Your task to perform on an android device: toggle improve location accuracy Image 0: 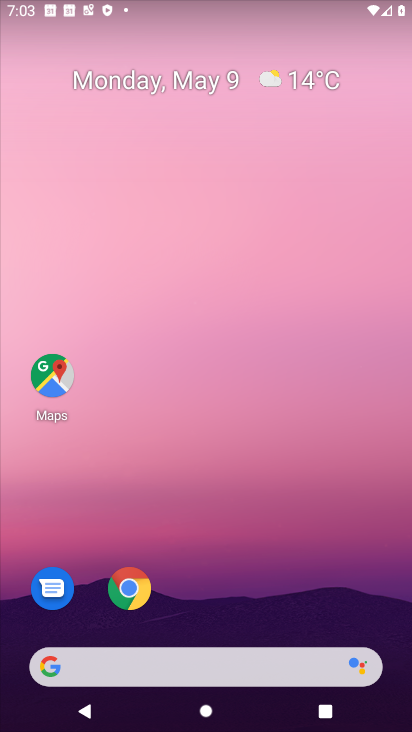
Step 0: drag from (329, 599) to (260, 58)
Your task to perform on an android device: toggle improve location accuracy Image 1: 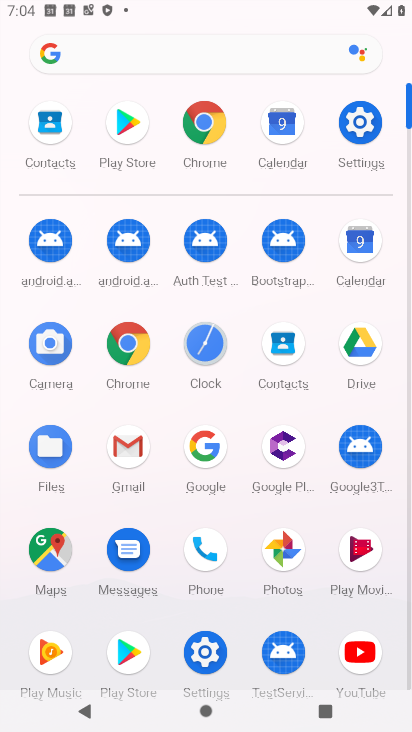
Step 1: click (216, 648)
Your task to perform on an android device: toggle improve location accuracy Image 2: 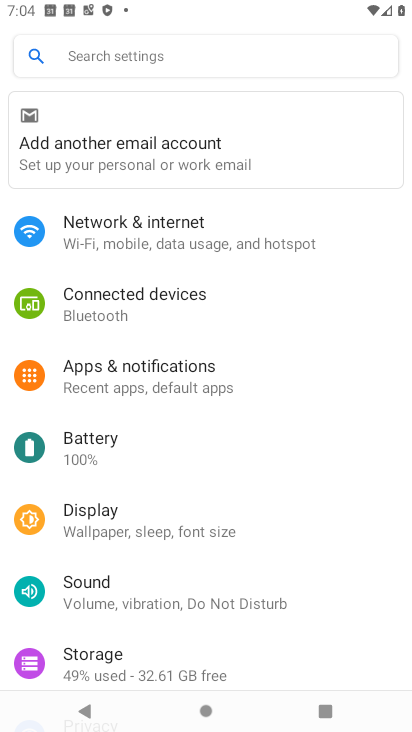
Step 2: drag from (150, 633) to (177, 187)
Your task to perform on an android device: toggle improve location accuracy Image 3: 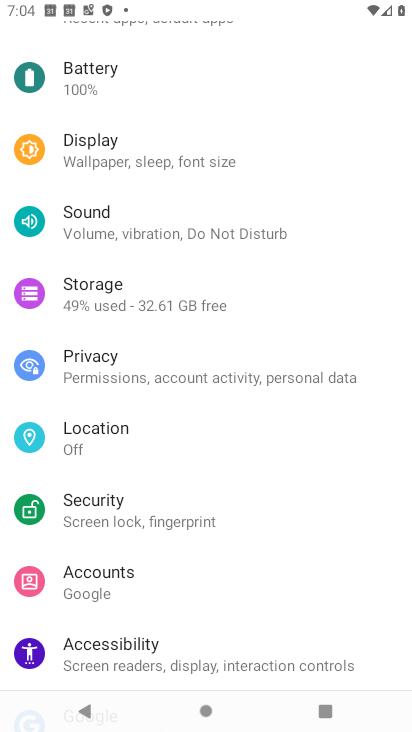
Step 3: click (128, 440)
Your task to perform on an android device: toggle improve location accuracy Image 4: 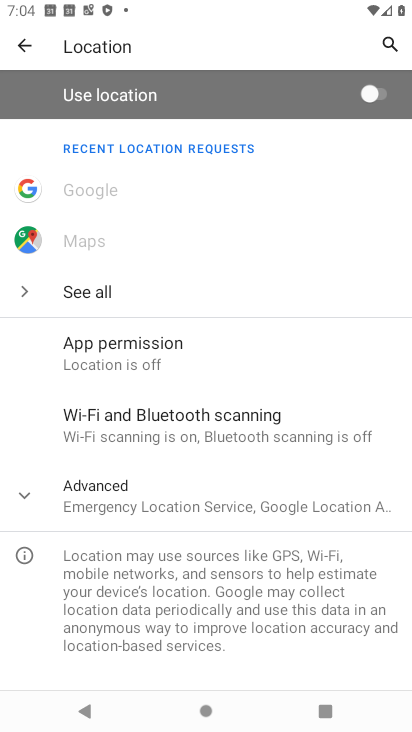
Step 4: click (108, 484)
Your task to perform on an android device: toggle improve location accuracy Image 5: 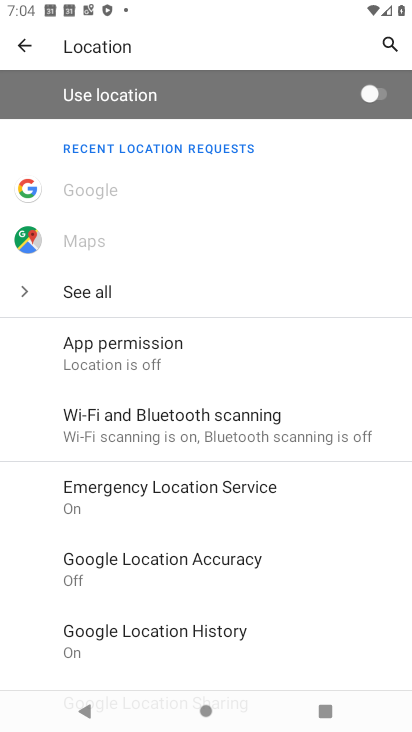
Step 5: click (163, 573)
Your task to perform on an android device: toggle improve location accuracy Image 6: 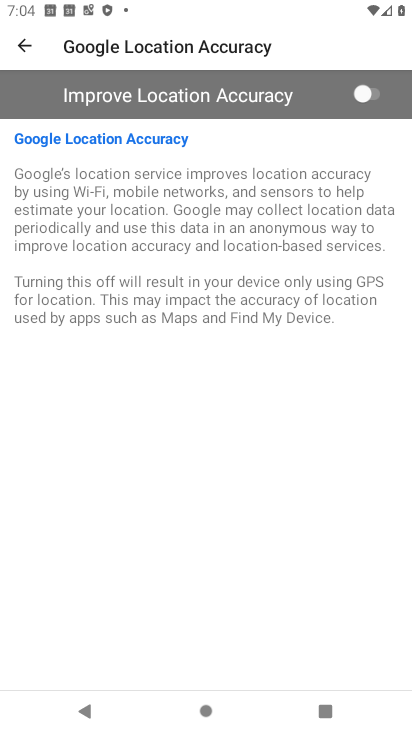
Step 6: click (352, 83)
Your task to perform on an android device: toggle improve location accuracy Image 7: 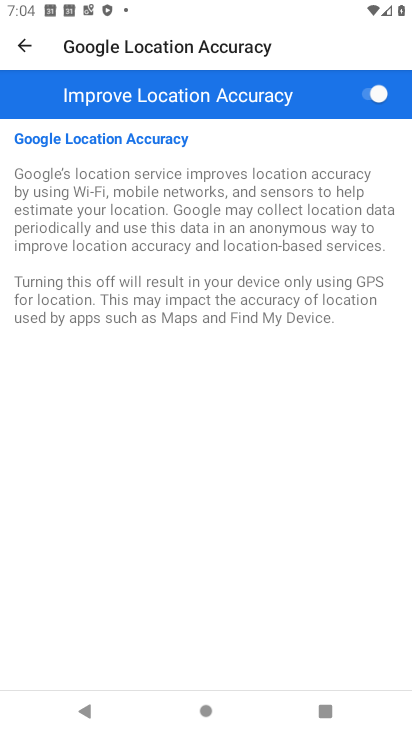
Step 7: task complete